Your task to perform on an android device: Clear the shopping cart on bestbuy. Image 0: 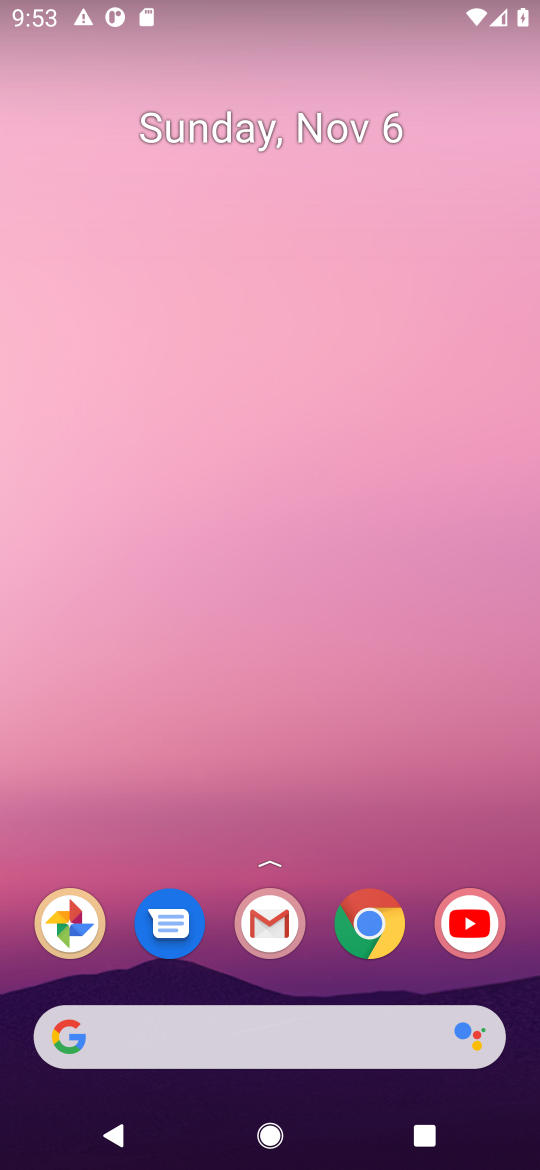
Step 0: click (370, 939)
Your task to perform on an android device: Clear the shopping cart on bestbuy. Image 1: 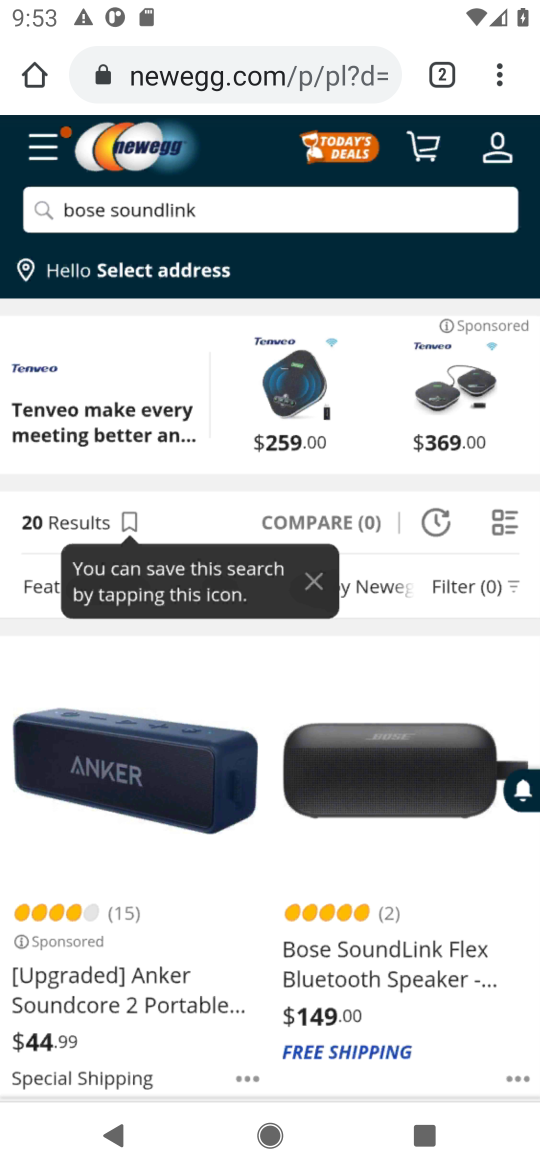
Step 1: click (207, 88)
Your task to perform on an android device: Clear the shopping cart on bestbuy. Image 2: 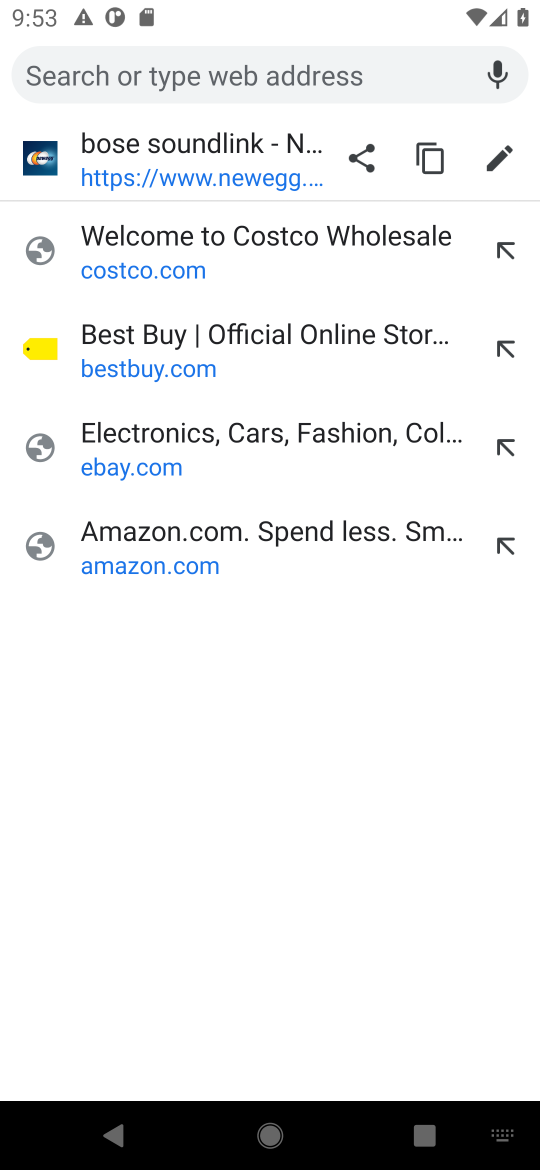
Step 2: click (145, 365)
Your task to perform on an android device: Clear the shopping cart on bestbuy. Image 3: 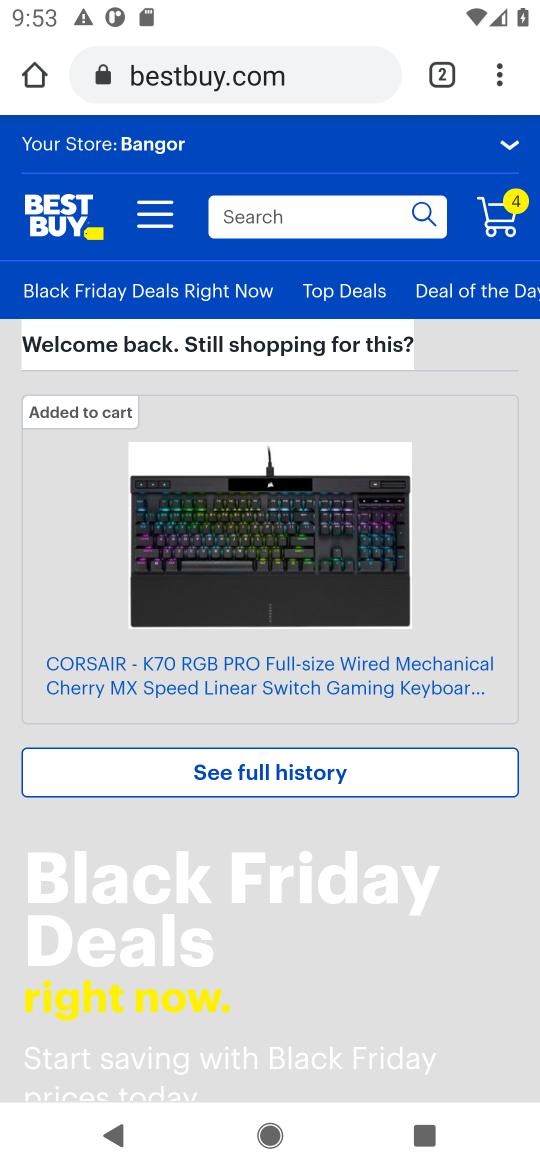
Step 3: click (499, 215)
Your task to perform on an android device: Clear the shopping cart on bestbuy. Image 4: 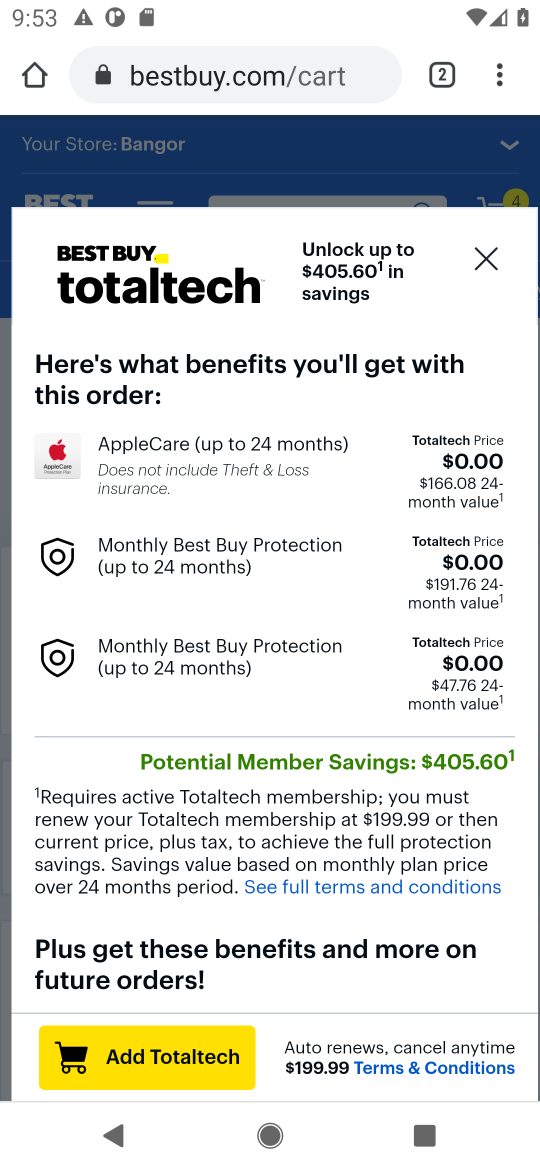
Step 4: click (478, 265)
Your task to perform on an android device: Clear the shopping cart on bestbuy. Image 5: 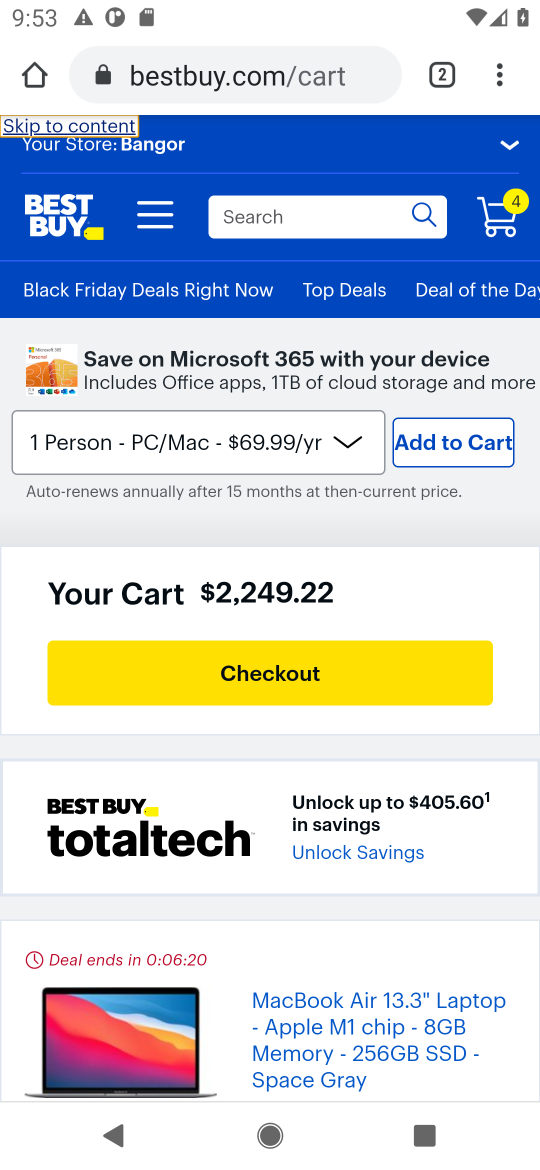
Step 5: drag from (242, 879) to (248, 456)
Your task to perform on an android device: Clear the shopping cart on bestbuy. Image 6: 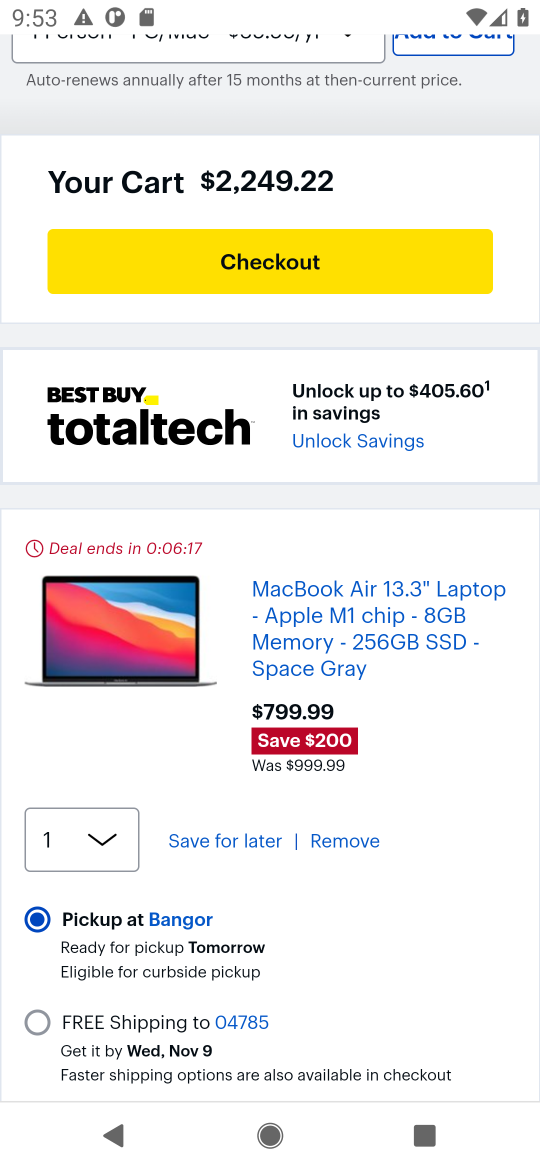
Step 6: click (349, 838)
Your task to perform on an android device: Clear the shopping cart on bestbuy. Image 7: 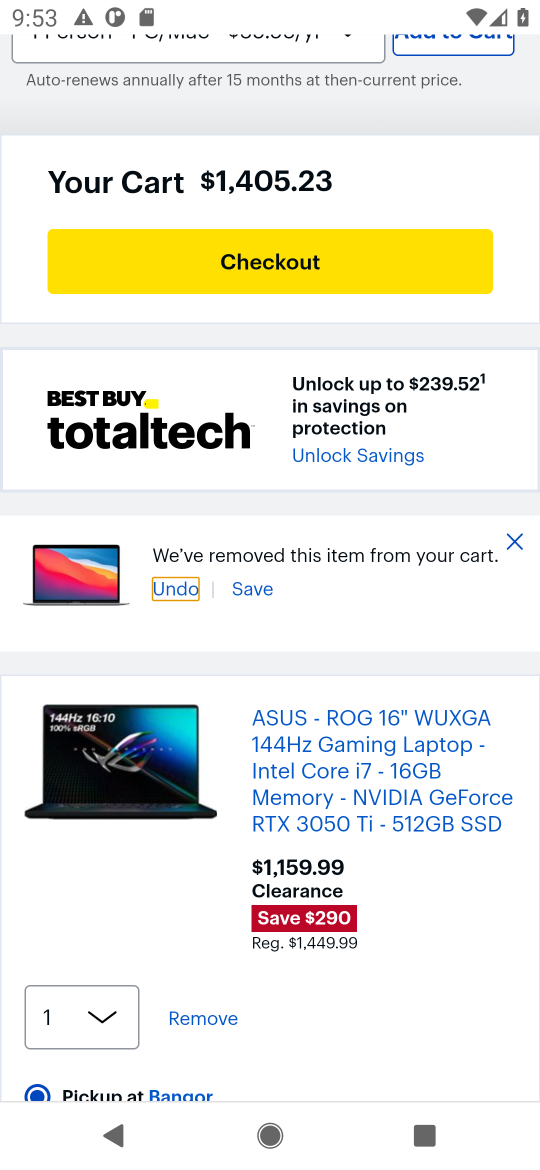
Step 7: click (171, 1012)
Your task to perform on an android device: Clear the shopping cart on bestbuy. Image 8: 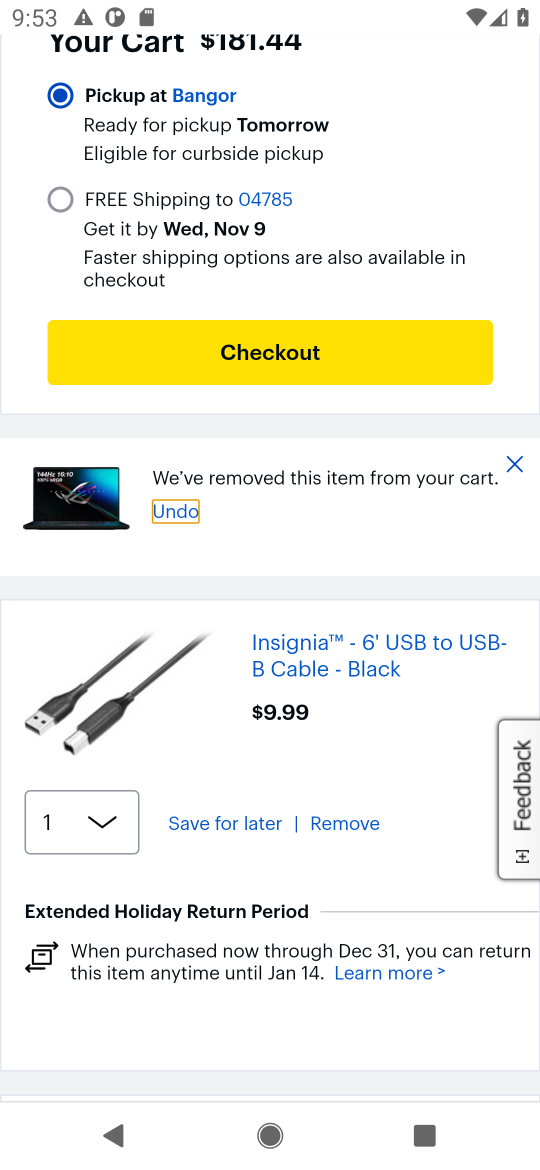
Step 8: click (324, 828)
Your task to perform on an android device: Clear the shopping cart on bestbuy. Image 9: 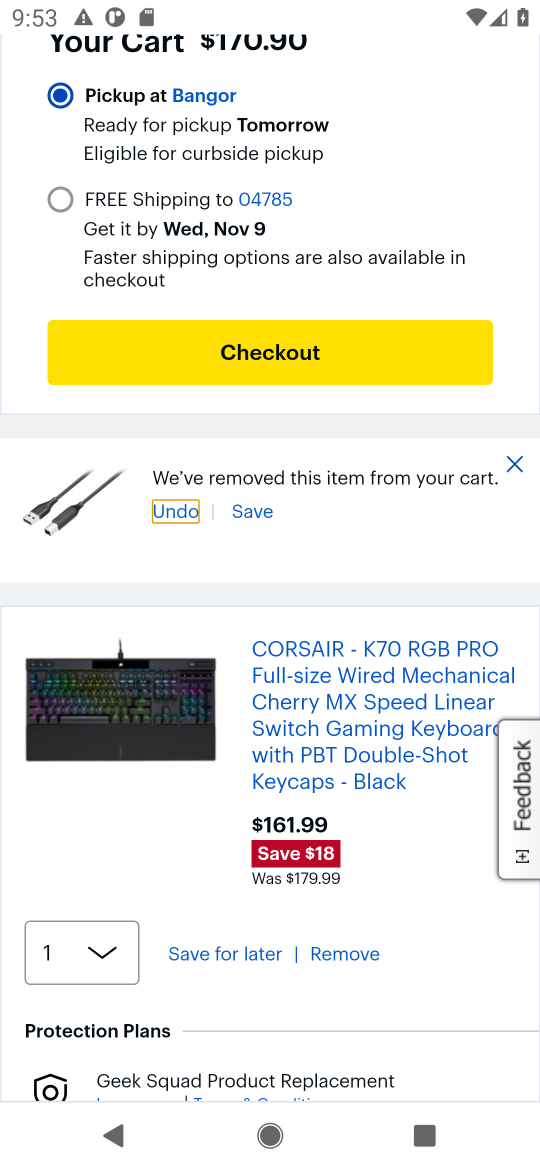
Step 9: click (320, 956)
Your task to perform on an android device: Clear the shopping cart on bestbuy. Image 10: 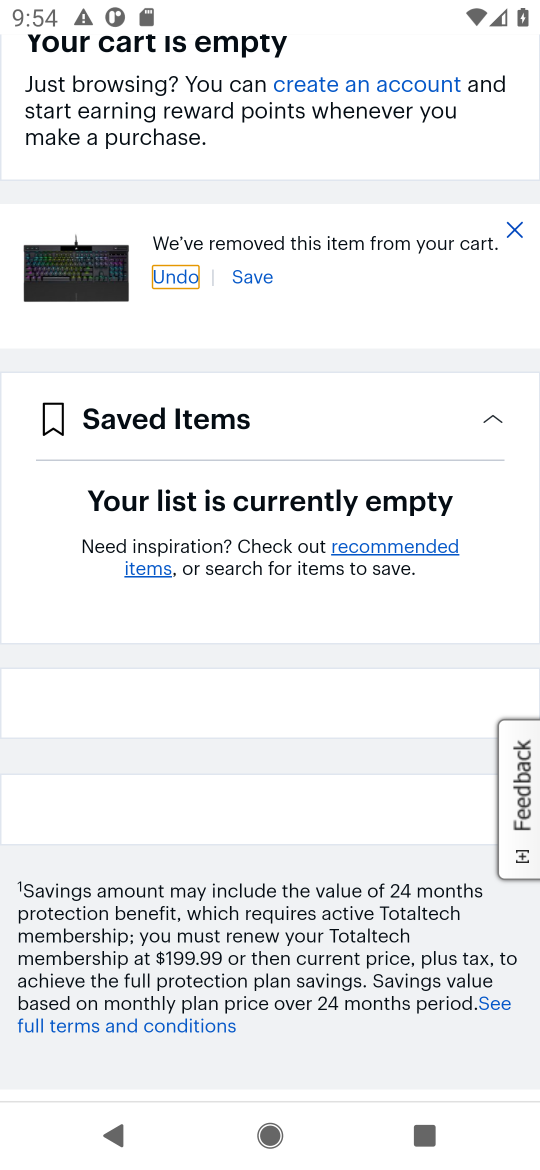
Step 10: task complete